Your task to perform on an android device: Go to wifi settings Image 0: 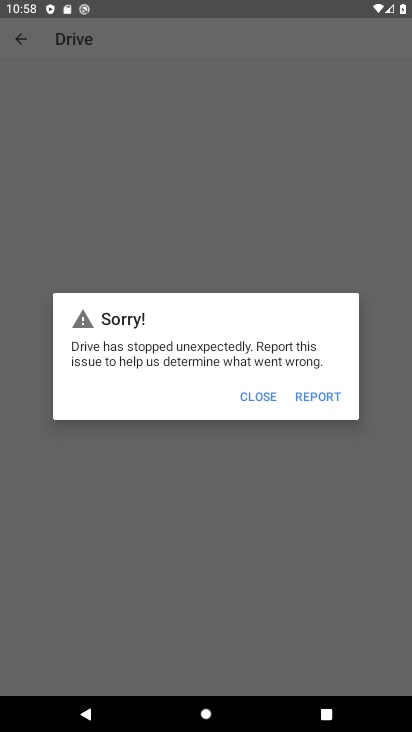
Step 0: task complete